Your task to perform on an android device: When is my next appointment? Image 0: 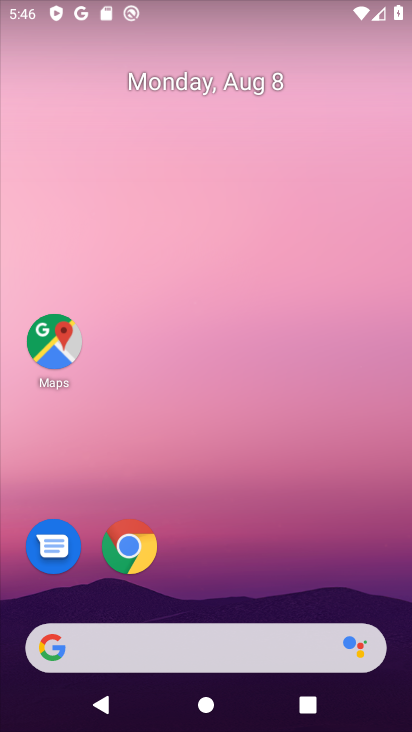
Step 0: drag from (231, 546) to (236, 191)
Your task to perform on an android device: When is my next appointment? Image 1: 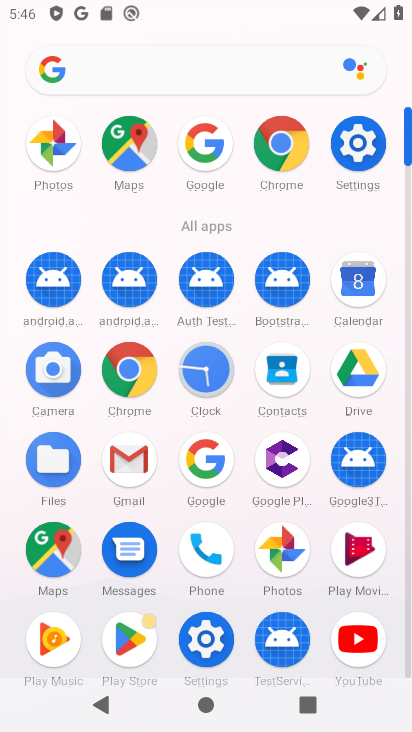
Step 1: click (361, 304)
Your task to perform on an android device: When is my next appointment? Image 2: 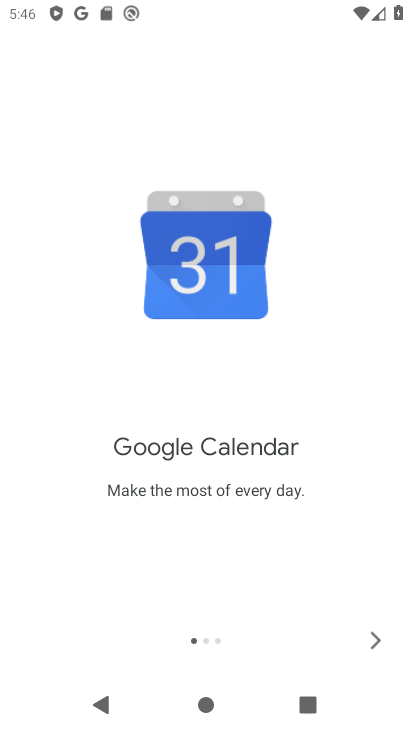
Step 2: click (369, 625)
Your task to perform on an android device: When is my next appointment? Image 3: 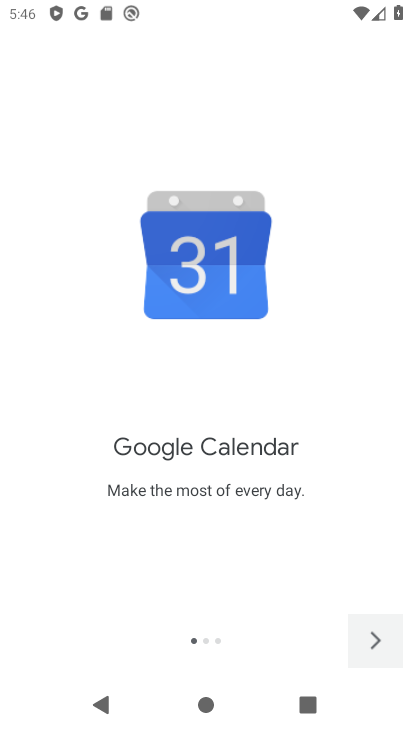
Step 3: click (369, 625)
Your task to perform on an android device: When is my next appointment? Image 4: 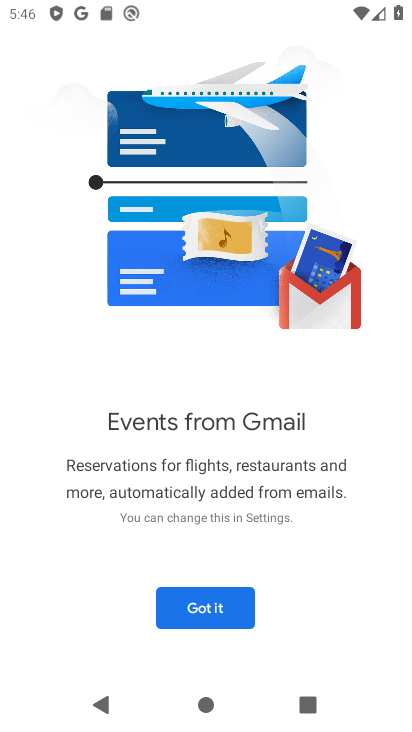
Step 4: click (219, 610)
Your task to perform on an android device: When is my next appointment? Image 5: 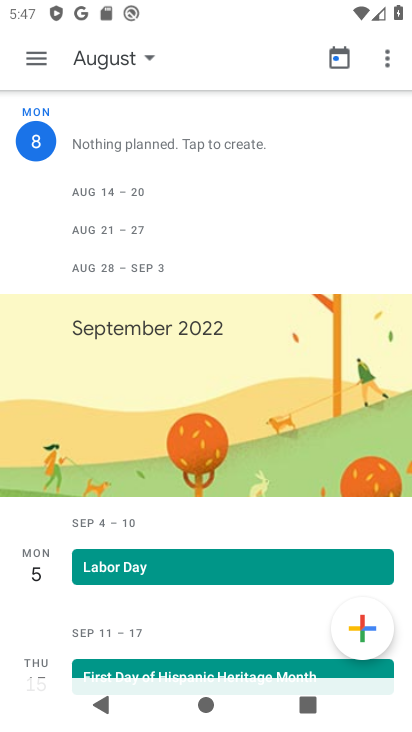
Step 5: click (141, 56)
Your task to perform on an android device: When is my next appointment? Image 6: 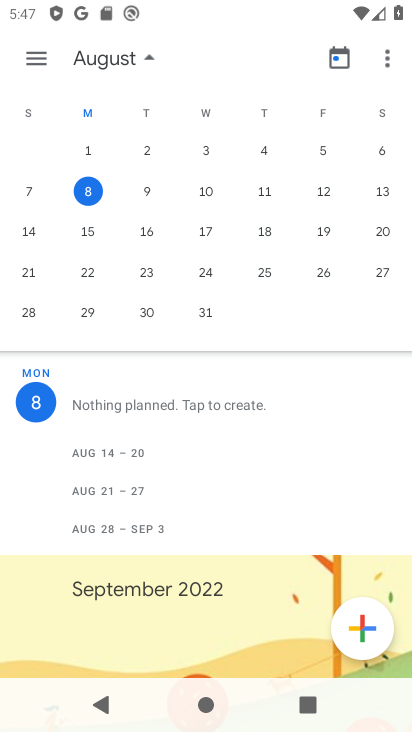
Step 6: click (148, 209)
Your task to perform on an android device: When is my next appointment? Image 7: 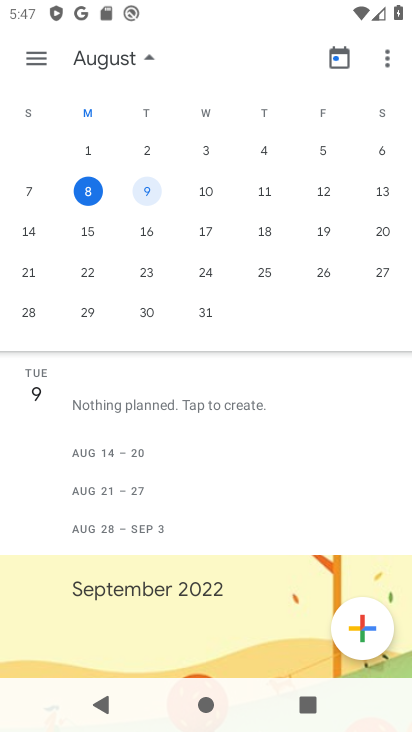
Step 7: click (126, 250)
Your task to perform on an android device: When is my next appointment? Image 8: 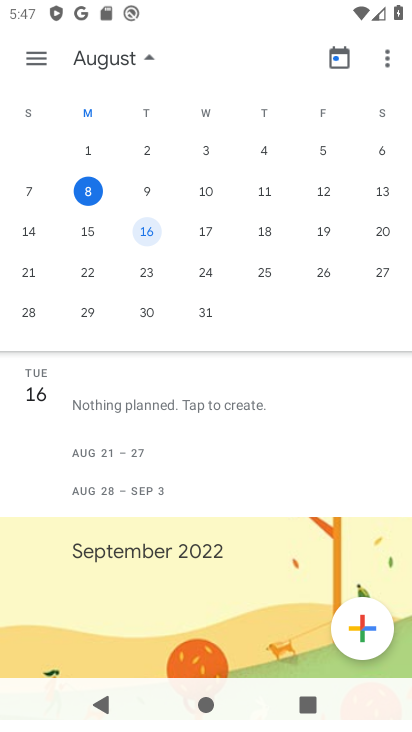
Step 8: task complete